Your task to perform on an android device: Open sound settings Image 0: 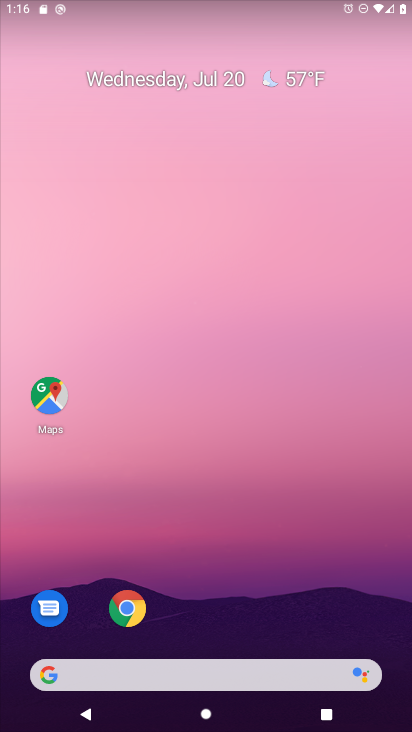
Step 0: drag from (251, 708) to (224, 328)
Your task to perform on an android device: Open sound settings Image 1: 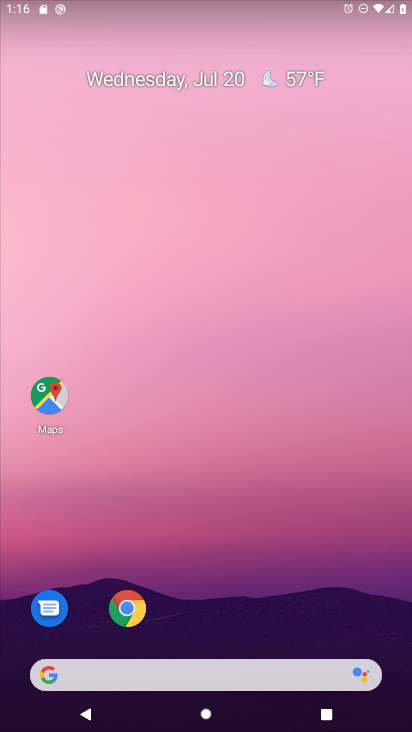
Step 1: drag from (272, 711) to (297, 280)
Your task to perform on an android device: Open sound settings Image 2: 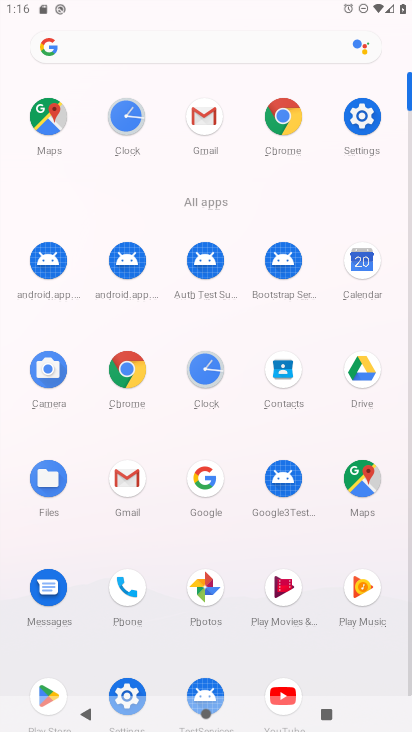
Step 2: click (358, 111)
Your task to perform on an android device: Open sound settings Image 3: 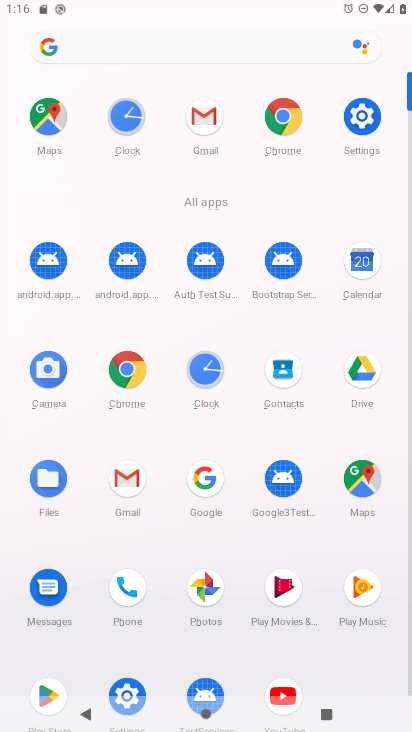
Step 3: click (358, 111)
Your task to perform on an android device: Open sound settings Image 4: 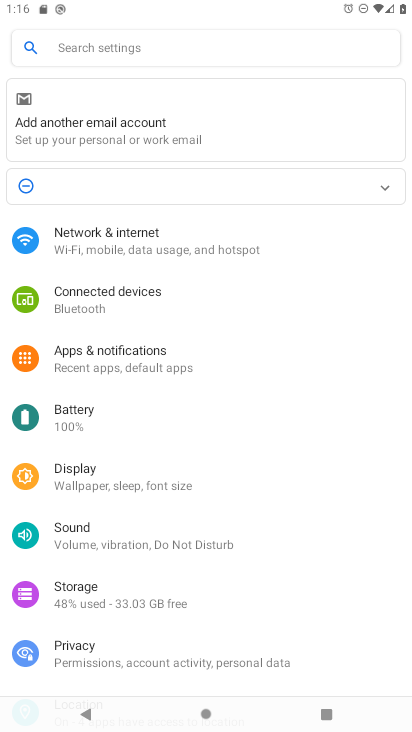
Step 4: click (95, 539)
Your task to perform on an android device: Open sound settings Image 5: 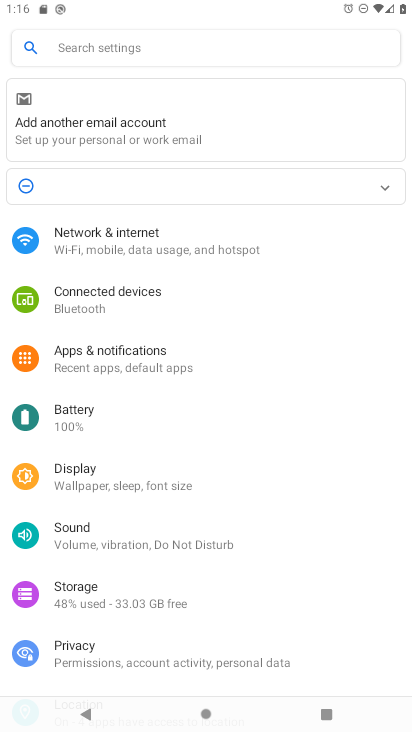
Step 5: click (95, 539)
Your task to perform on an android device: Open sound settings Image 6: 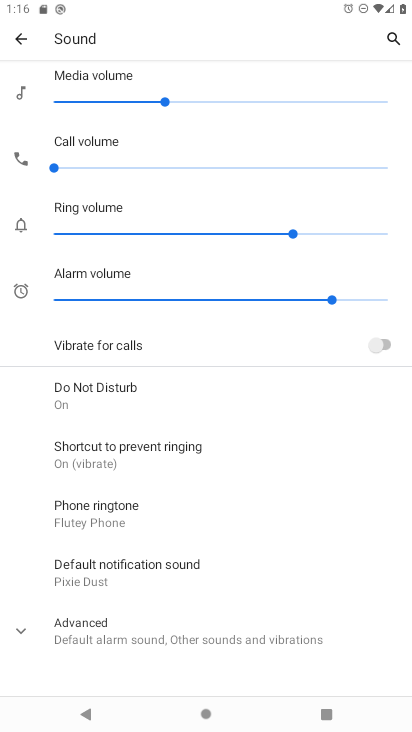
Step 6: task complete